Your task to perform on an android device: allow cookies in the chrome app Image 0: 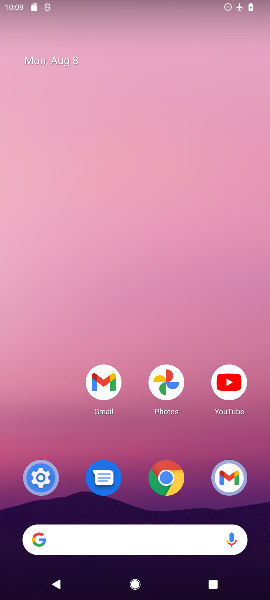
Step 0: click (159, 476)
Your task to perform on an android device: allow cookies in the chrome app Image 1: 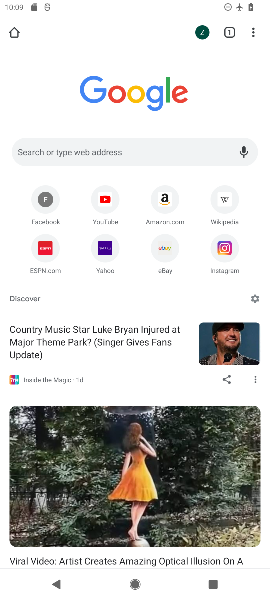
Step 1: drag from (253, 31) to (160, 317)
Your task to perform on an android device: allow cookies in the chrome app Image 2: 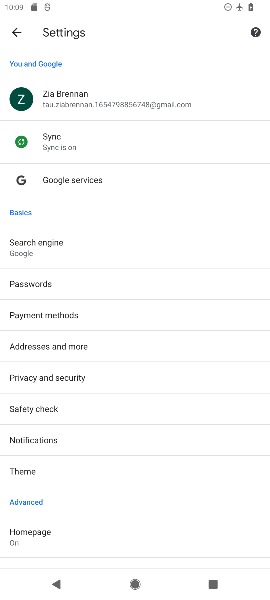
Step 2: click (33, 17)
Your task to perform on an android device: allow cookies in the chrome app Image 3: 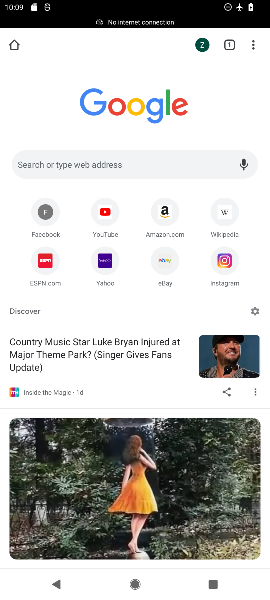
Step 3: click (251, 42)
Your task to perform on an android device: allow cookies in the chrome app Image 4: 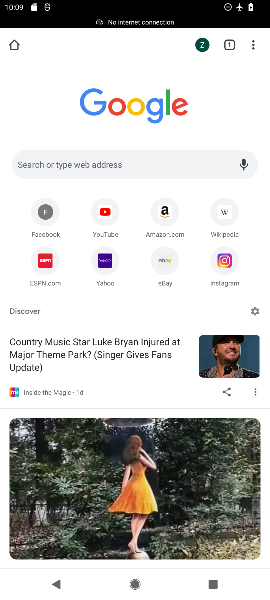
Step 4: drag from (260, 38) to (164, 321)
Your task to perform on an android device: allow cookies in the chrome app Image 5: 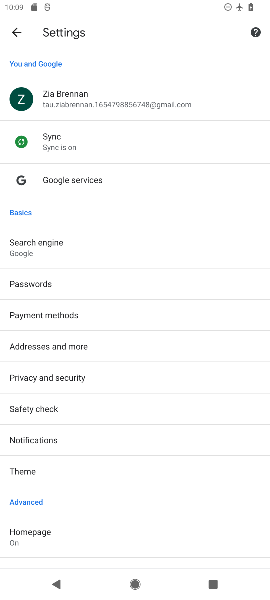
Step 5: drag from (103, 438) to (101, 140)
Your task to perform on an android device: allow cookies in the chrome app Image 6: 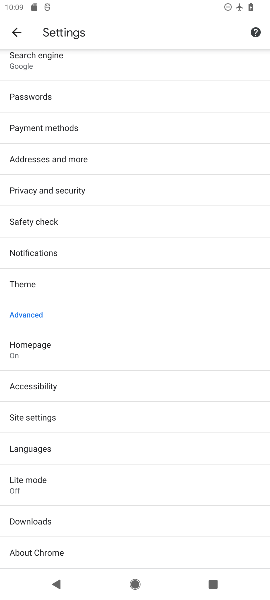
Step 6: click (56, 421)
Your task to perform on an android device: allow cookies in the chrome app Image 7: 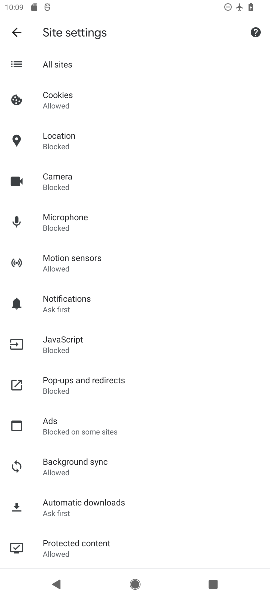
Step 7: click (72, 86)
Your task to perform on an android device: allow cookies in the chrome app Image 8: 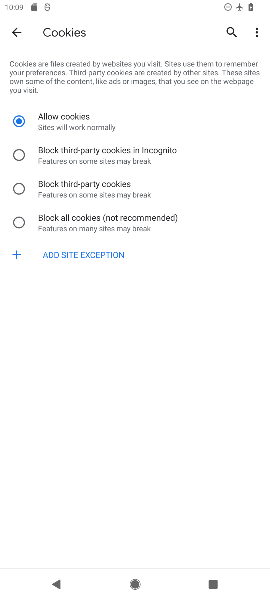
Step 8: task complete